Your task to perform on an android device: turn vacation reply on in the gmail app Image 0: 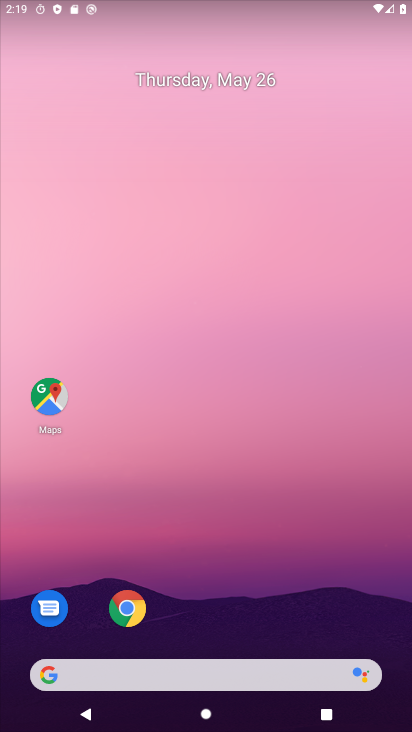
Step 0: drag from (272, 673) to (184, 129)
Your task to perform on an android device: turn vacation reply on in the gmail app Image 1: 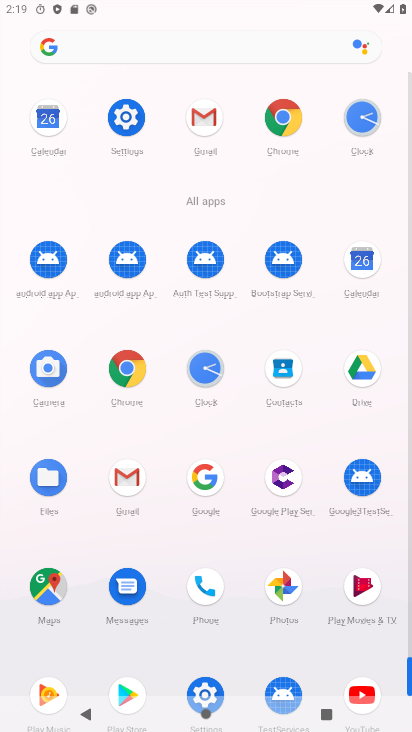
Step 1: click (132, 484)
Your task to perform on an android device: turn vacation reply on in the gmail app Image 2: 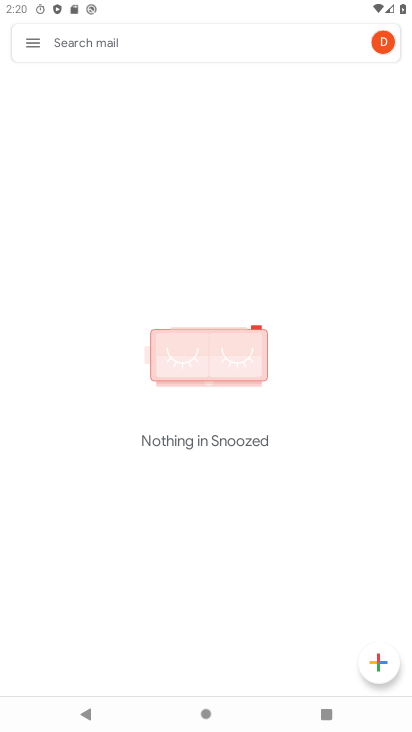
Step 2: click (31, 49)
Your task to perform on an android device: turn vacation reply on in the gmail app Image 3: 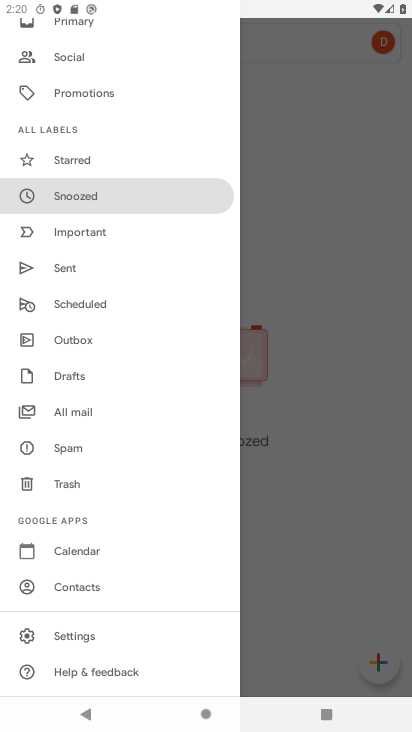
Step 3: click (71, 631)
Your task to perform on an android device: turn vacation reply on in the gmail app Image 4: 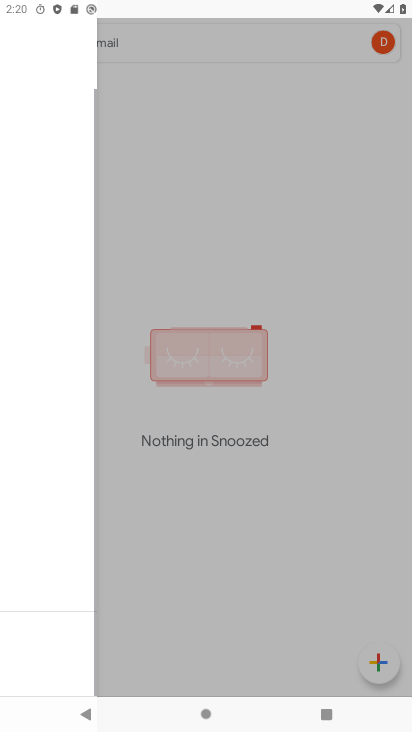
Step 4: click (69, 634)
Your task to perform on an android device: turn vacation reply on in the gmail app Image 5: 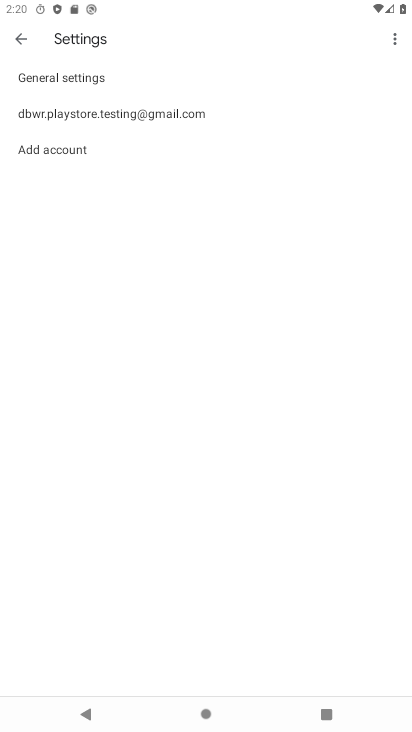
Step 5: click (70, 109)
Your task to perform on an android device: turn vacation reply on in the gmail app Image 6: 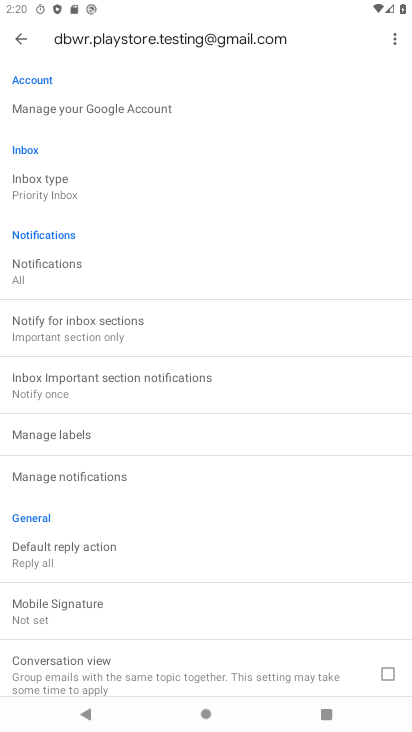
Step 6: drag from (56, 621) to (62, 154)
Your task to perform on an android device: turn vacation reply on in the gmail app Image 7: 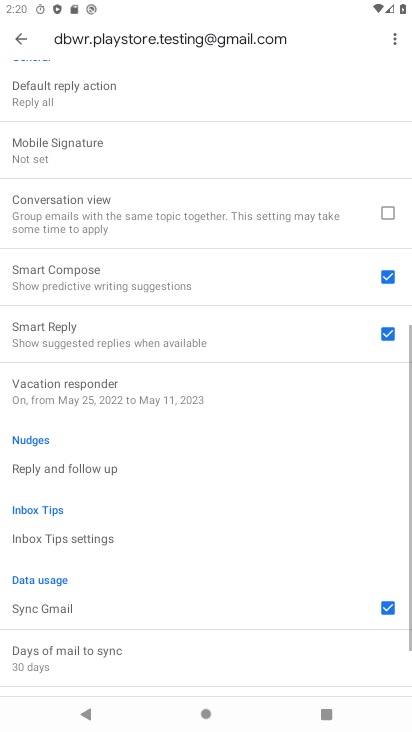
Step 7: drag from (138, 470) to (136, 183)
Your task to perform on an android device: turn vacation reply on in the gmail app Image 8: 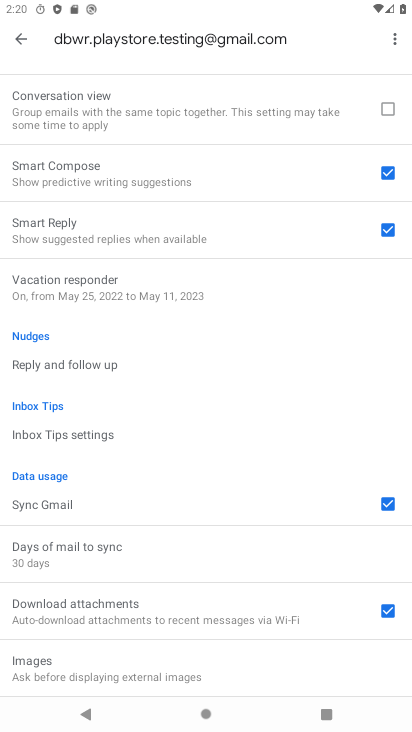
Step 8: drag from (134, 511) to (134, 223)
Your task to perform on an android device: turn vacation reply on in the gmail app Image 9: 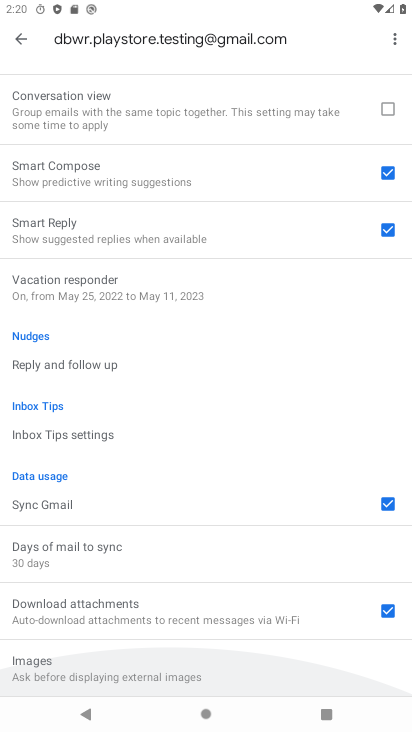
Step 9: drag from (194, 442) to (163, 61)
Your task to perform on an android device: turn vacation reply on in the gmail app Image 10: 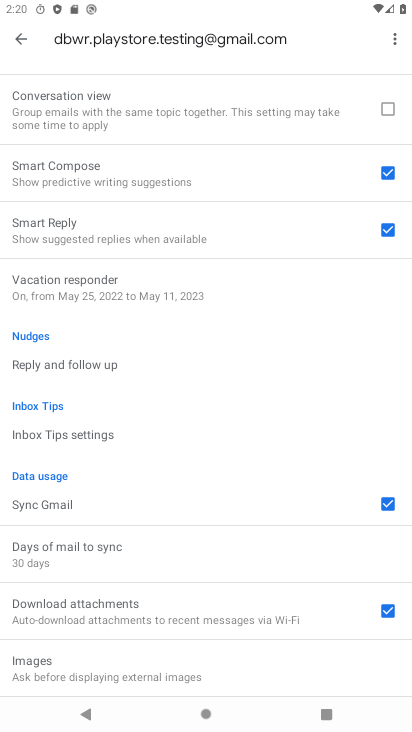
Step 10: click (110, 279)
Your task to perform on an android device: turn vacation reply on in the gmail app Image 11: 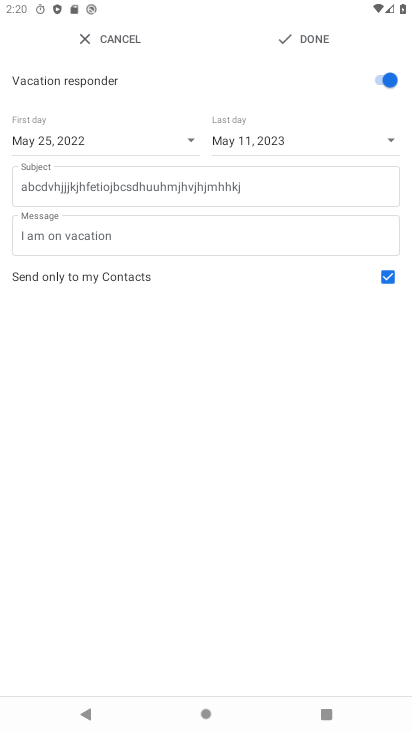
Step 11: click (389, 78)
Your task to perform on an android device: turn vacation reply on in the gmail app Image 12: 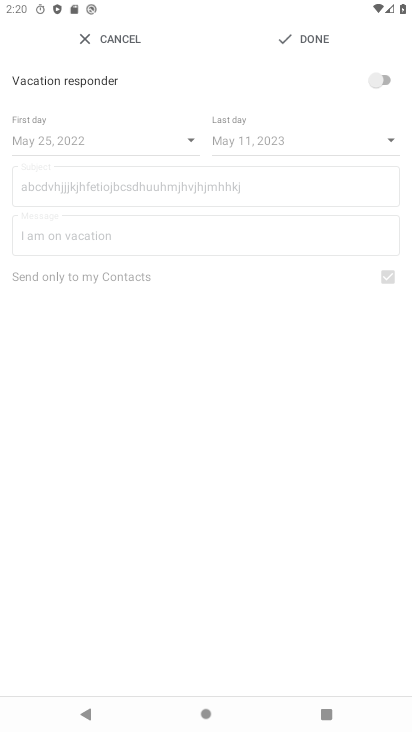
Step 12: task complete